Your task to perform on an android device: Is it going to rain this weekend? Image 0: 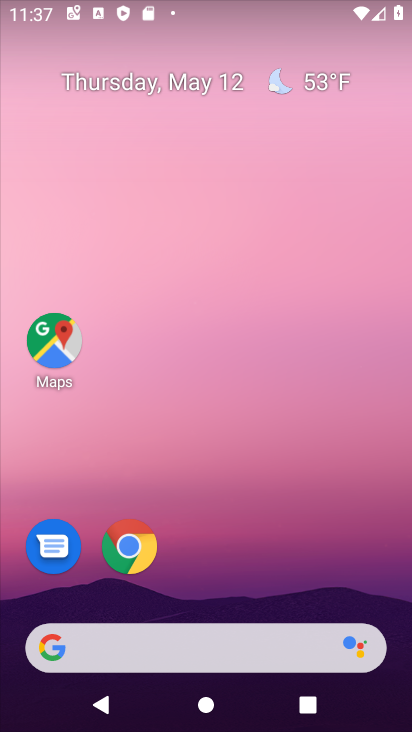
Step 0: drag from (282, 630) to (144, 164)
Your task to perform on an android device: Is it going to rain this weekend? Image 1: 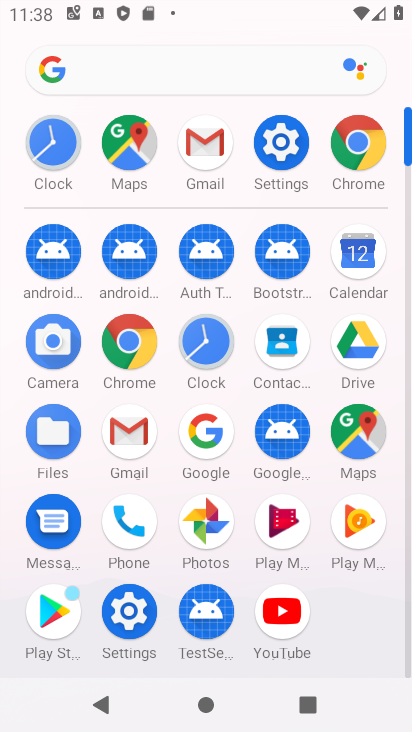
Step 1: click (150, 71)
Your task to perform on an android device: Is it going to rain this weekend? Image 2: 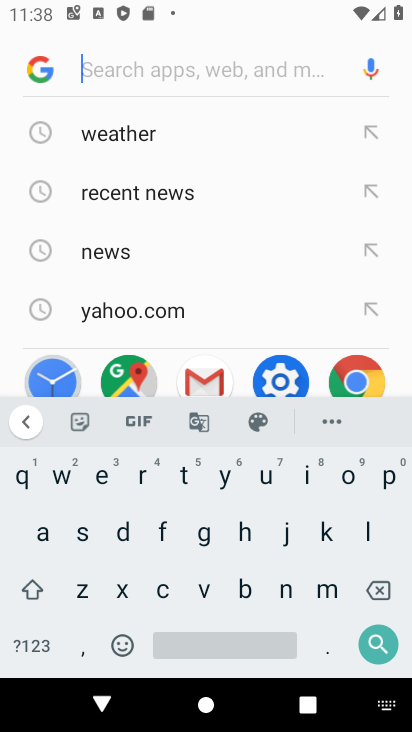
Step 2: click (146, 138)
Your task to perform on an android device: Is it going to rain this weekend? Image 3: 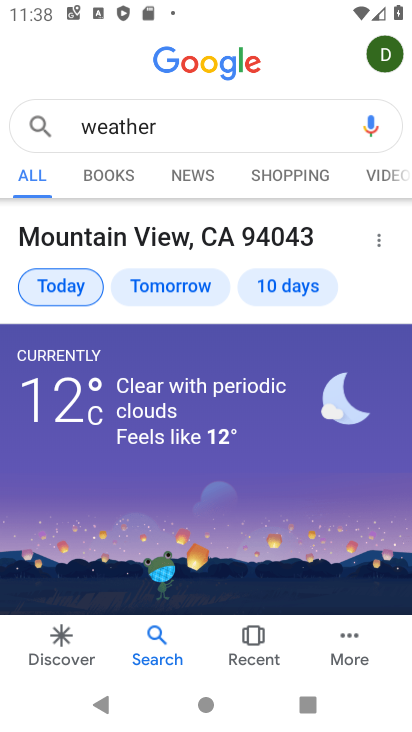
Step 3: click (258, 284)
Your task to perform on an android device: Is it going to rain this weekend? Image 4: 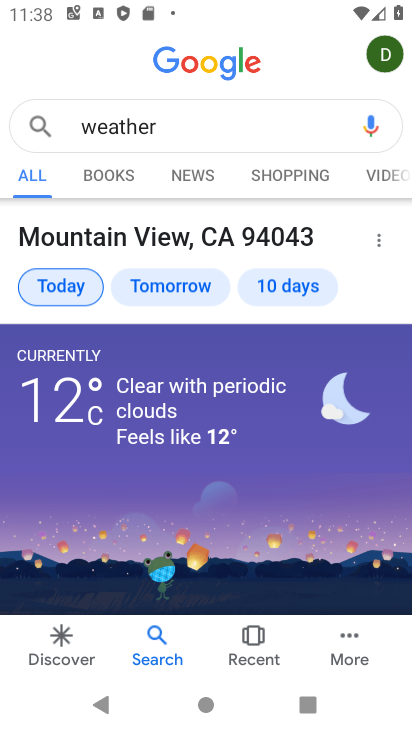
Step 4: click (279, 293)
Your task to perform on an android device: Is it going to rain this weekend? Image 5: 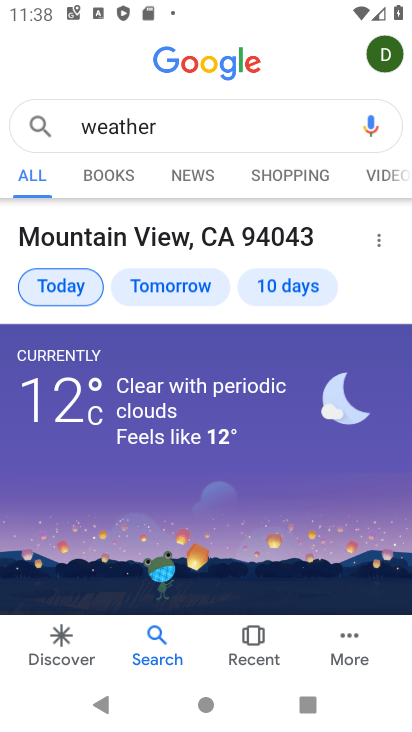
Step 5: task complete